Your task to perform on an android device: Show me the alarms in the clock app Image 0: 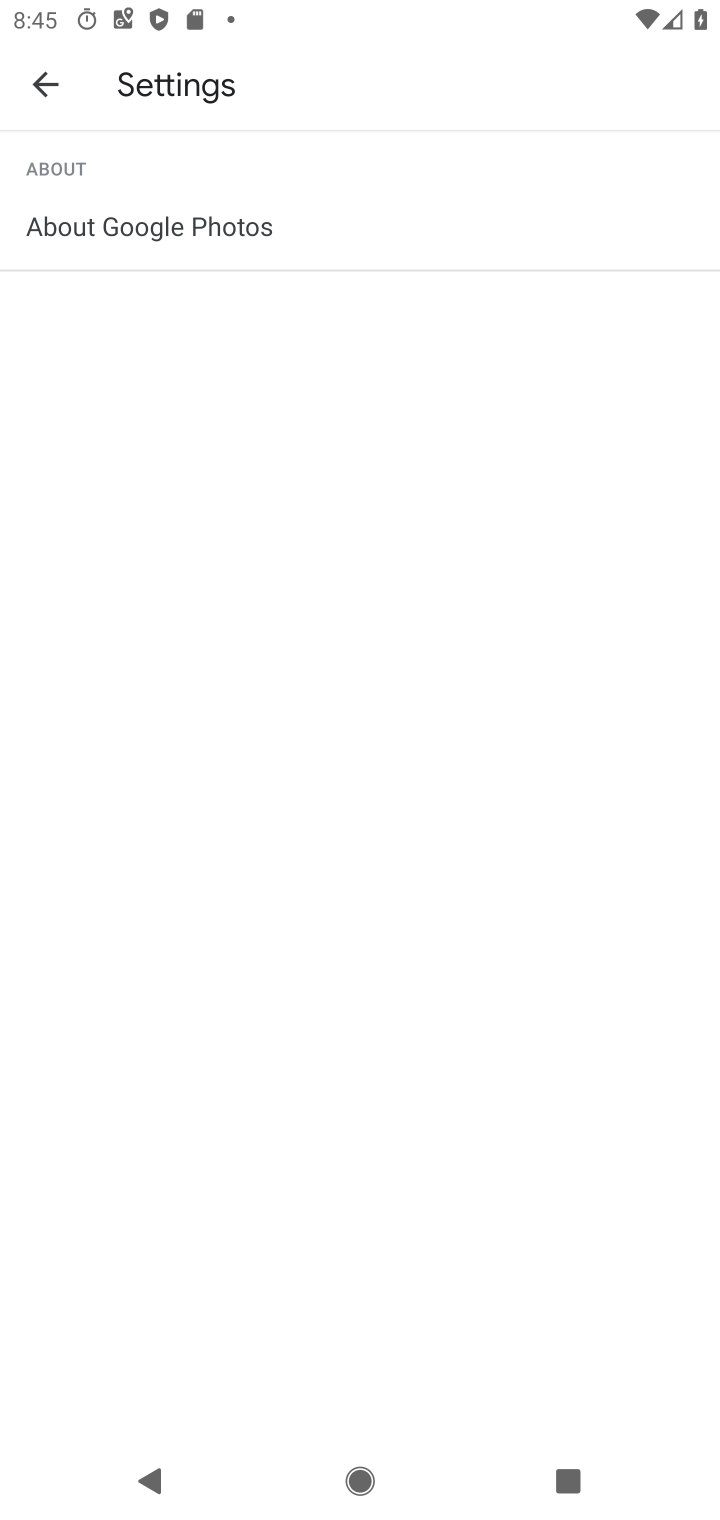
Step 0: press home button
Your task to perform on an android device: Show me the alarms in the clock app Image 1: 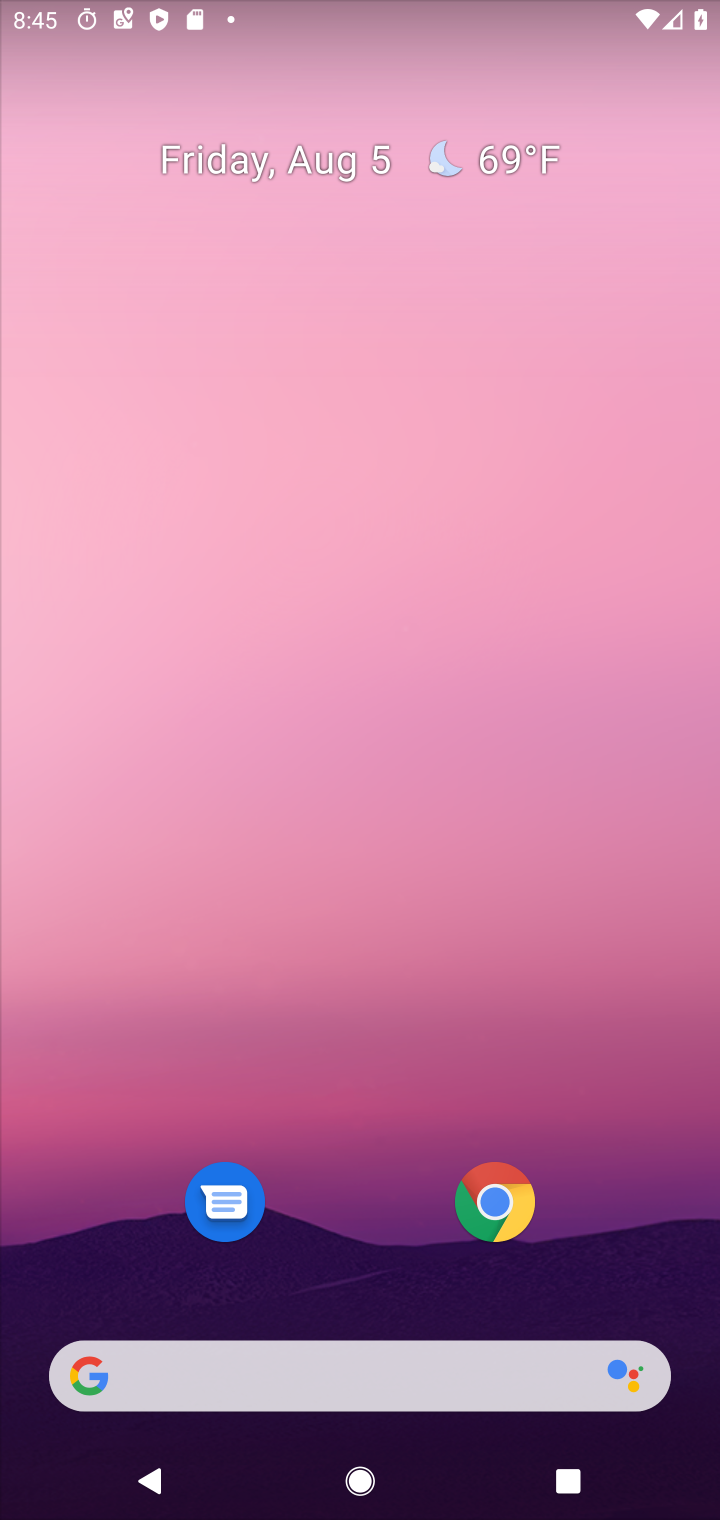
Step 1: drag from (346, 922) to (360, 348)
Your task to perform on an android device: Show me the alarms in the clock app Image 2: 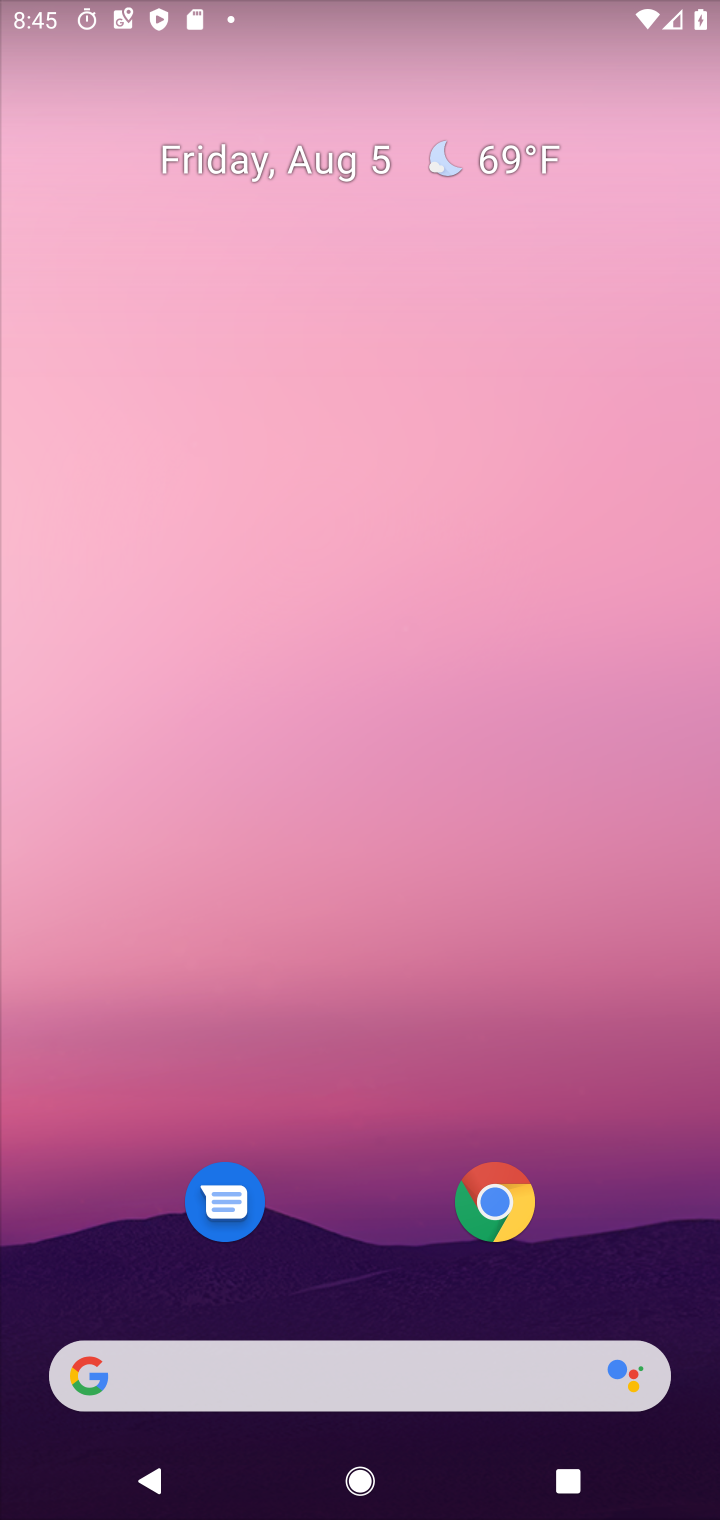
Step 2: drag from (368, 1225) to (315, 57)
Your task to perform on an android device: Show me the alarms in the clock app Image 3: 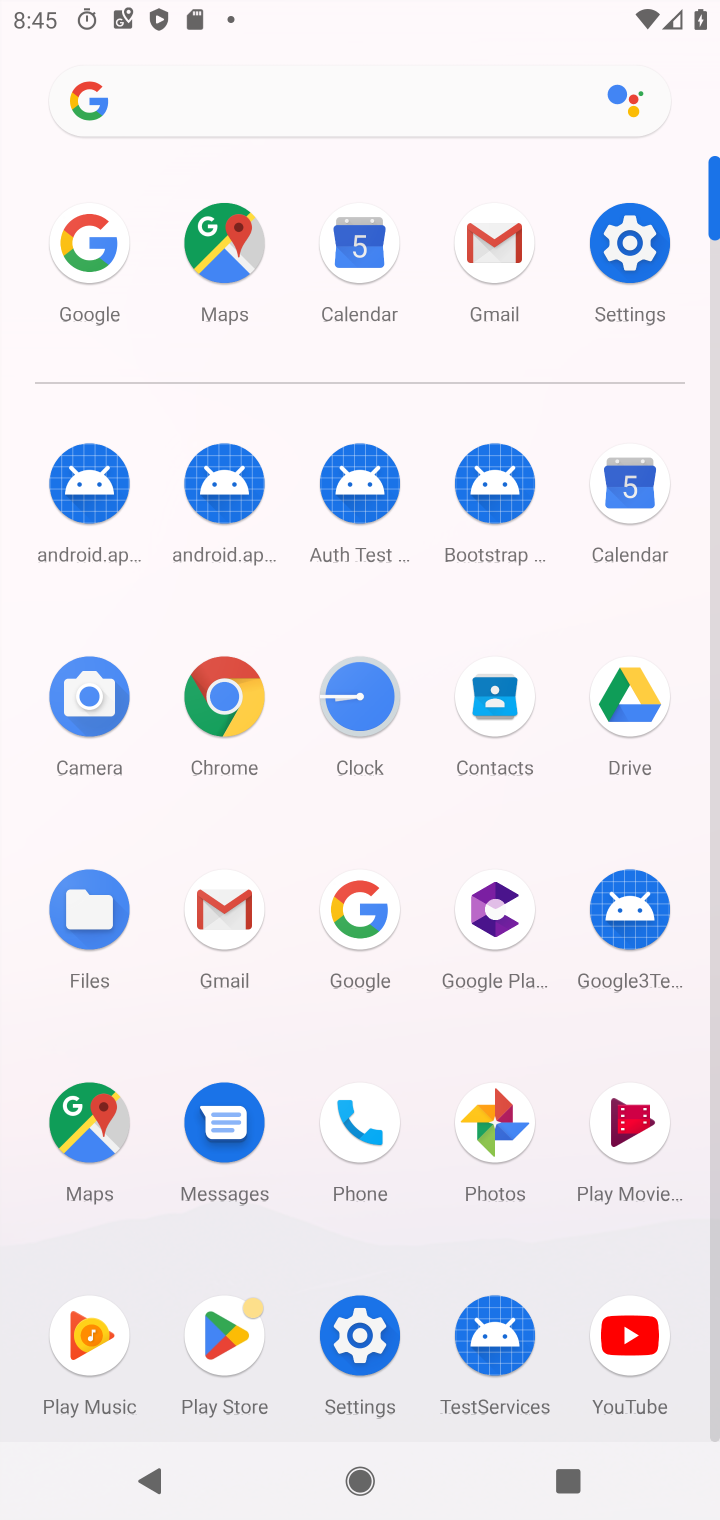
Step 3: click (353, 694)
Your task to perform on an android device: Show me the alarms in the clock app Image 4: 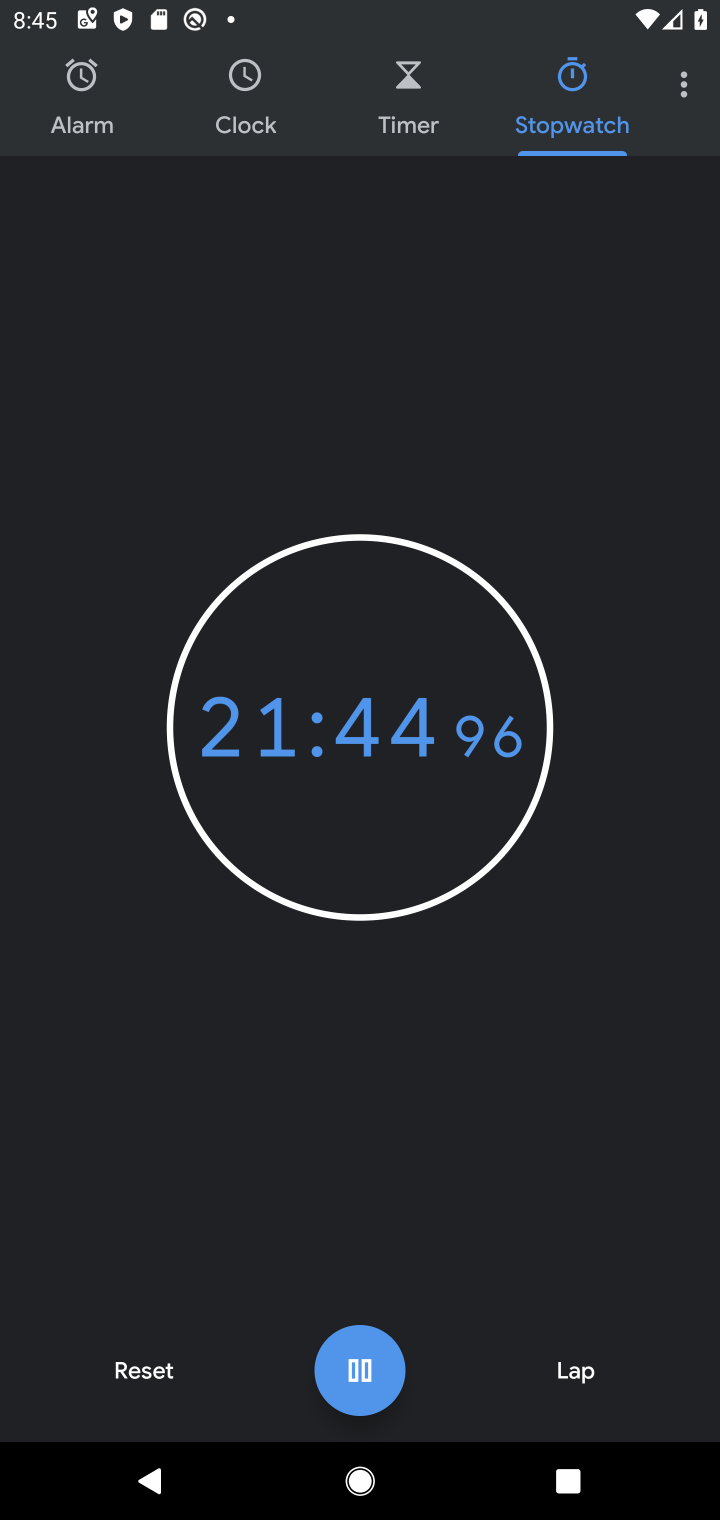
Step 4: click (72, 89)
Your task to perform on an android device: Show me the alarms in the clock app Image 5: 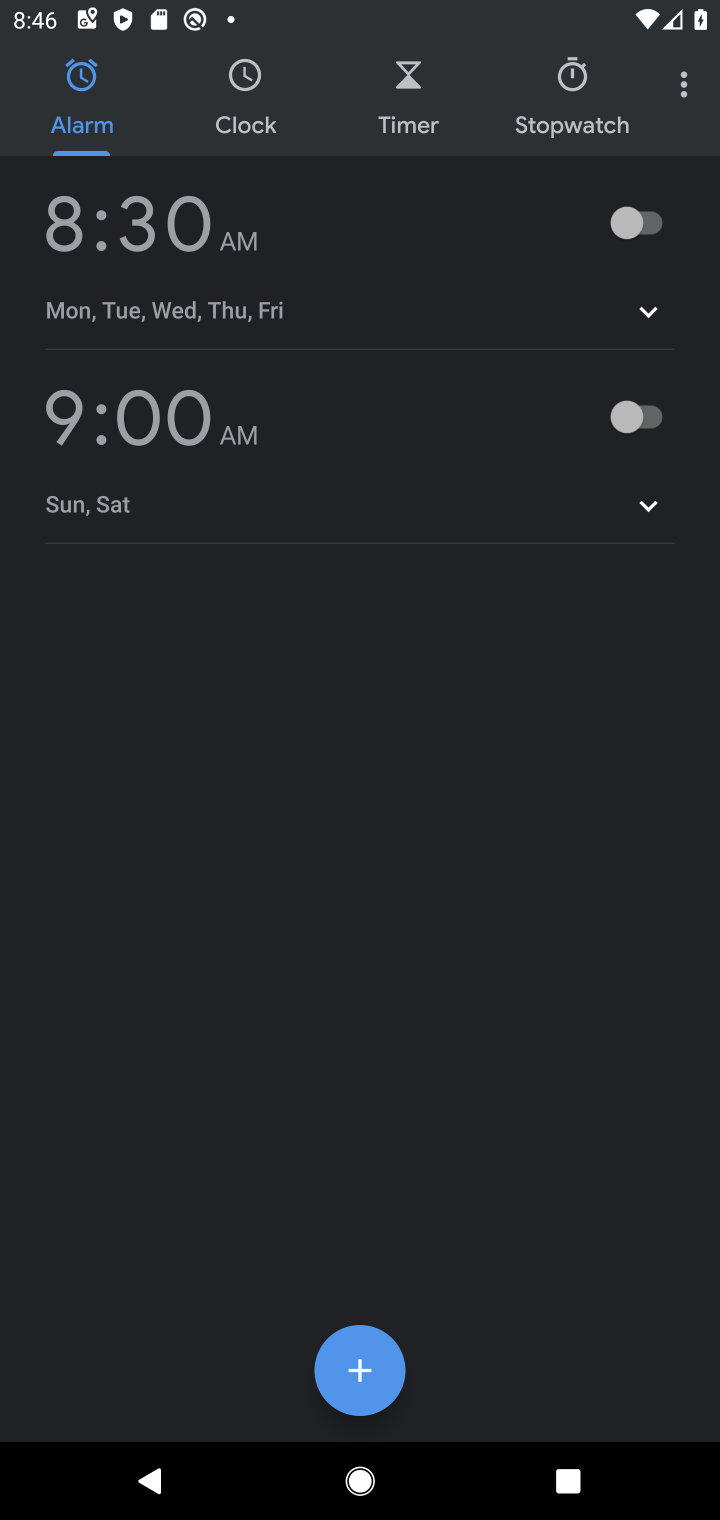
Step 5: task complete